Your task to perform on an android device: What's the weather going to be this weekend? Image 0: 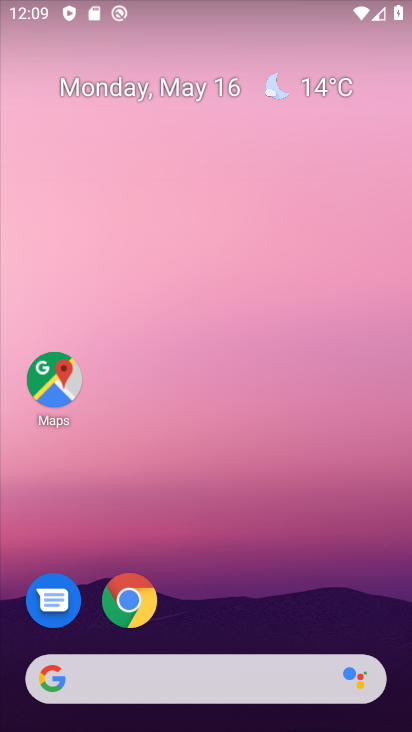
Step 0: click (322, 85)
Your task to perform on an android device: What's the weather going to be this weekend? Image 1: 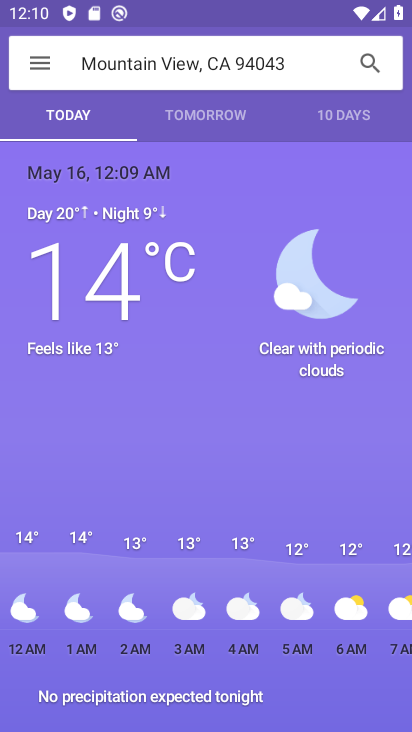
Step 1: click (355, 116)
Your task to perform on an android device: What's the weather going to be this weekend? Image 2: 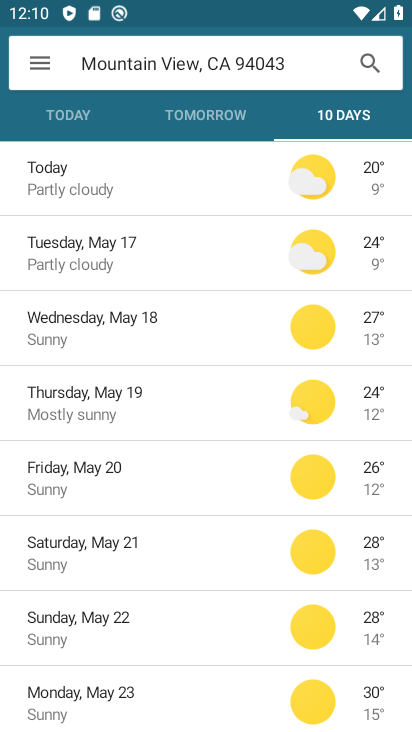
Step 2: drag from (173, 699) to (175, 539)
Your task to perform on an android device: What's the weather going to be this weekend? Image 3: 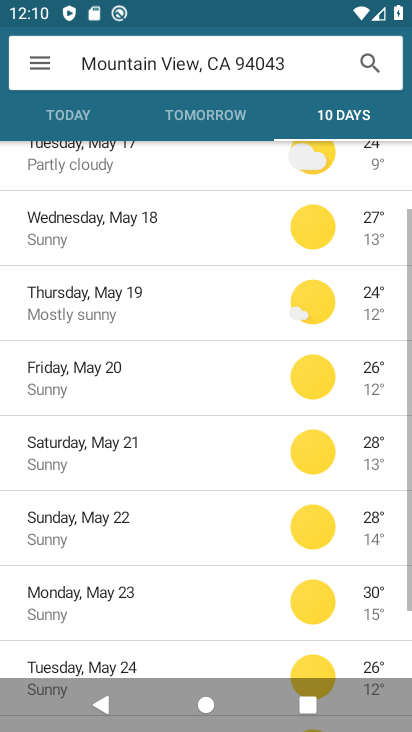
Step 3: click (176, 373)
Your task to perform on an android device: What's the weather going to be this weekend? Image 4: 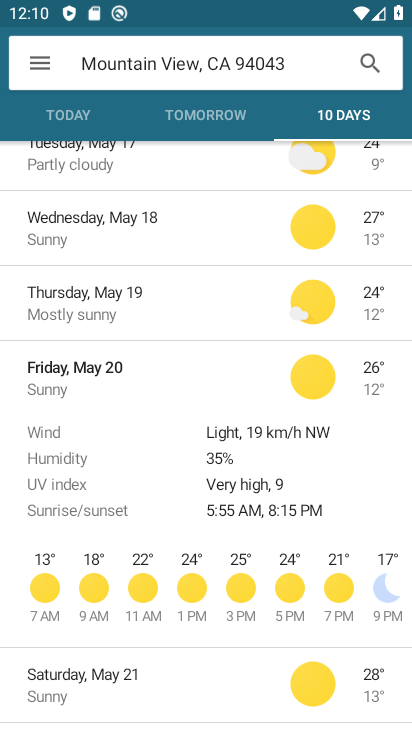
Step 4: task complete